Your task to perform on an android device: turn on the 12-hour format for clock Image 0: 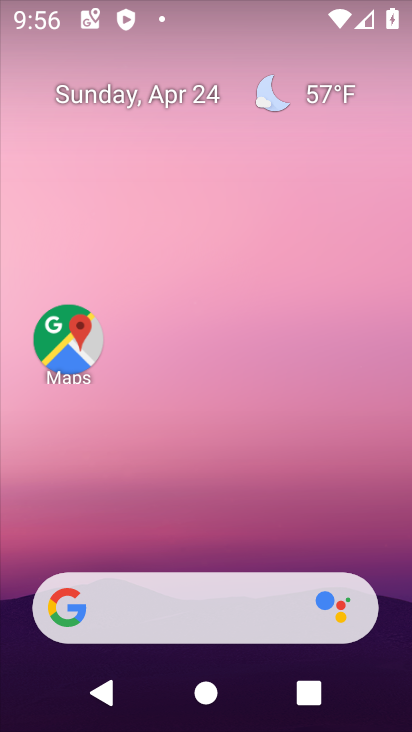
Step 0: drag from (225, 699) to (225, 81)
Your task to perform on an android device: turn on the 12-hour format for clock Image 1: 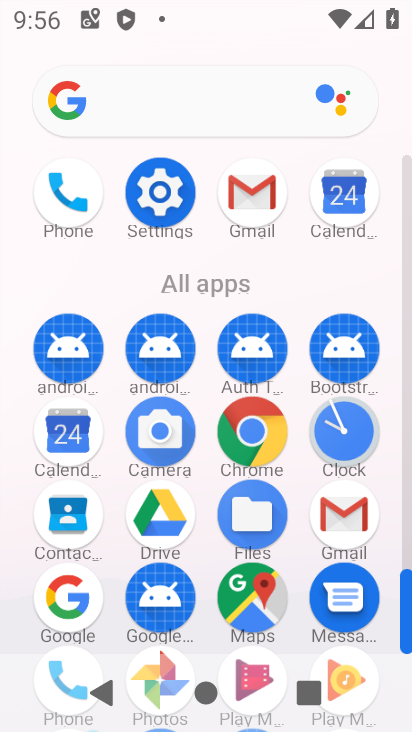
Step 1: click (333, 435)
Your task to perform on an android device: turn on the 12-hour format for clock Image 2: 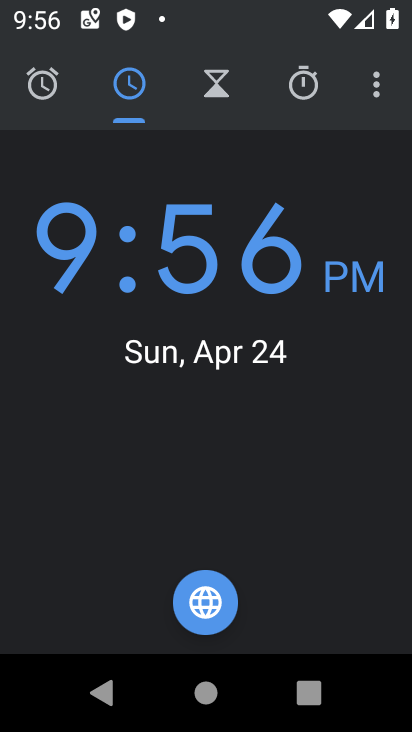
Step 2: click (377, 83)
Your task to perform on an android device: turn on the 12-hour format for clock Image 3: 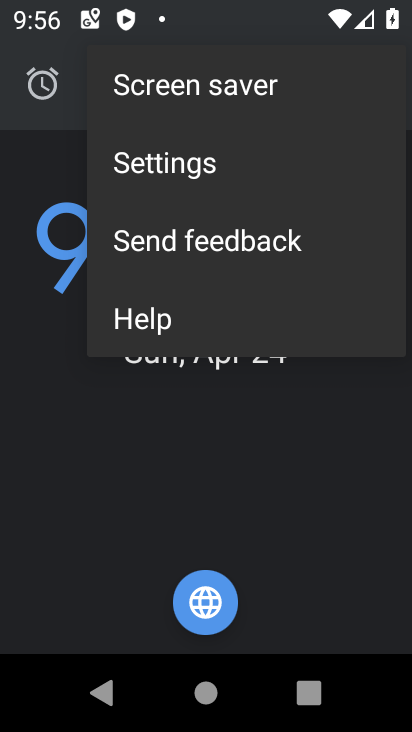
Step 3: click (161, 157)
Your task to perform on an android device: turn on the 12-hour format for clock Image 4: 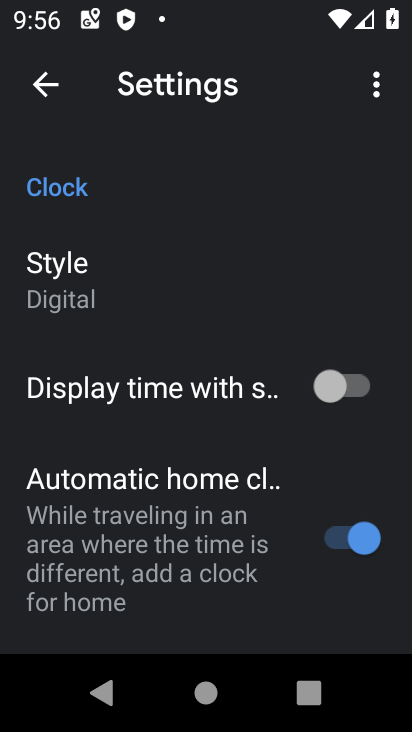
Step 4: drag from (159, 624) to (159, 295)
Your task to perform on an android device: turn on the 12-hour format for clock Image 5: 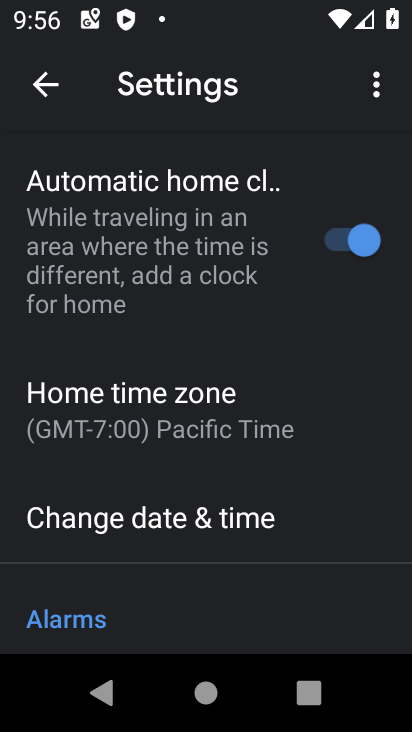
Step 5: drag from (162, 614) to (150, 268)
Your task to perform on an android device: turn on the 12-hour format for clock Image 6: 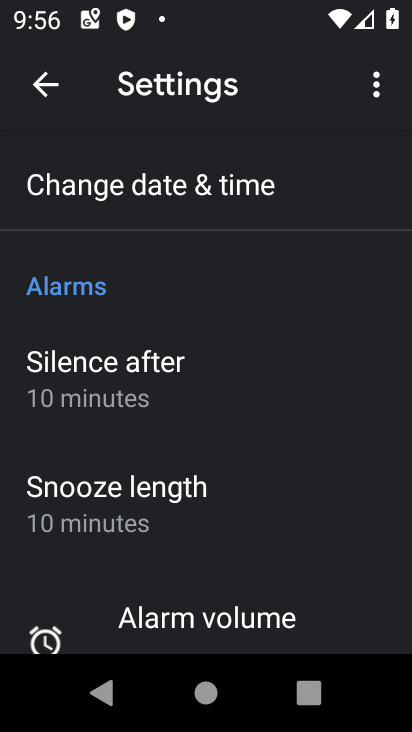
Step 6: click (163, 185)
Your task to perform on an android device: turn on the 12-hour format for clock Image 7: 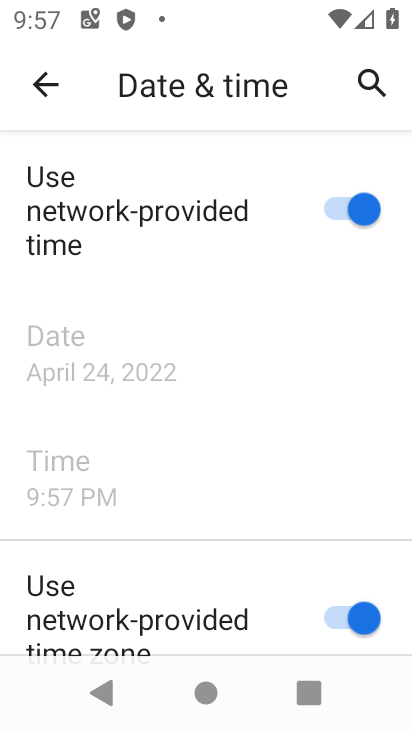
Step 7: task complete